Your task to perform on an android device: Do I have any events tomorrow? Image 0: 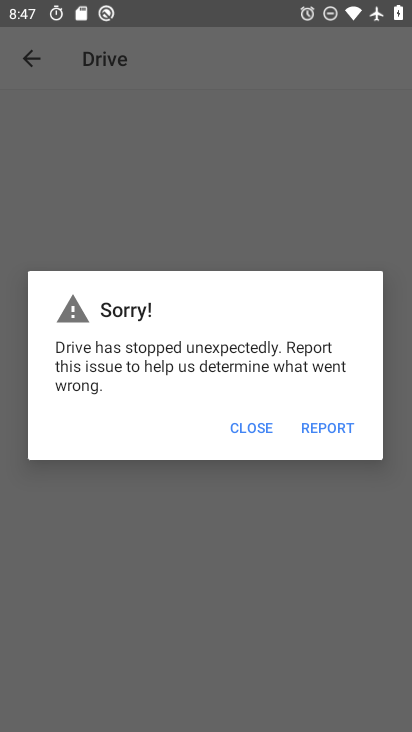
Step 0: press home button
Your task to perform on an android device: Do I have any events tomorrow? Image 1: 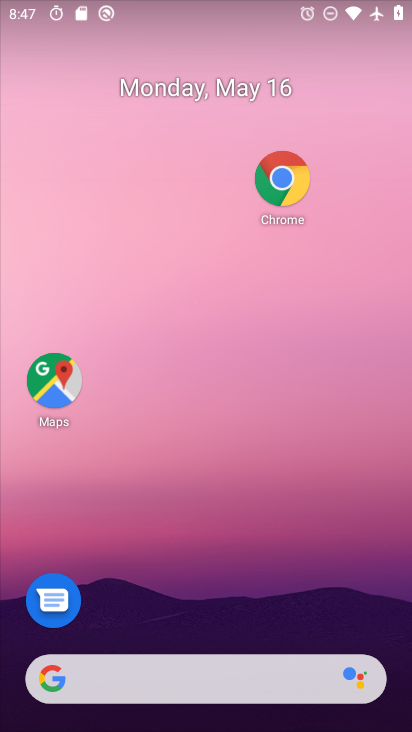
Step 1: drag from (189, 648) to (274, 122)
Your task to perform on an android device: Do I have any events tomorrow? Image 2: 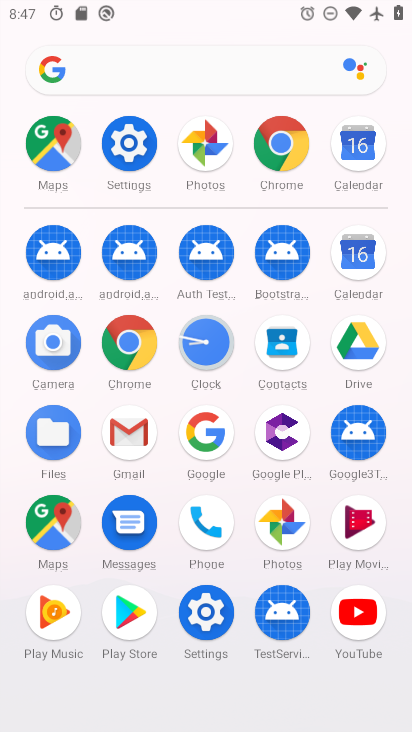
Step 2: click (362, 264)
Your task to perform on an android device: Do I have any events tomorrow? Image 3: 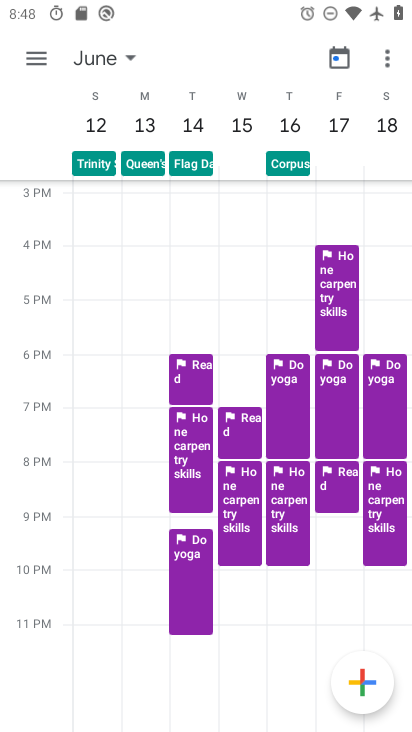
Step 3: click (117, 56)
Your task to perform on an android device: Do I have any events tomorrow? Image 4: 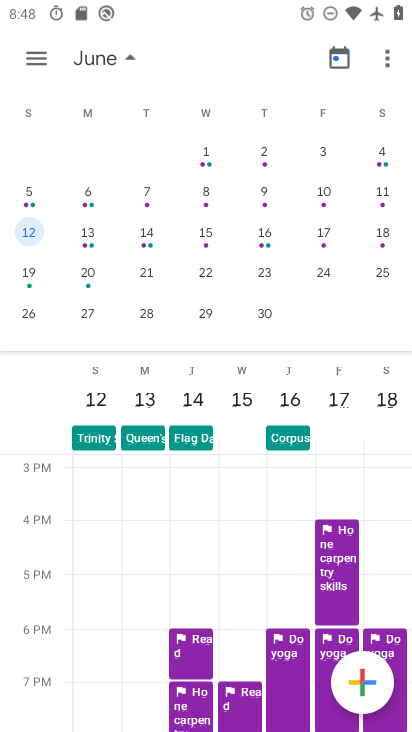
Step 4: click (336, 56)
Your task to perform on an android device: Do I have any events tomorrow? Image 5: 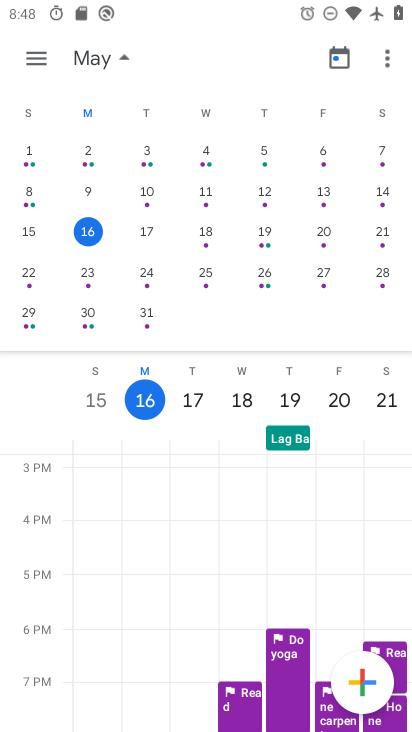
Step 5: click (147, 235)
Your task to perform on an android device: Do I have any events tomorrow? Image 6: 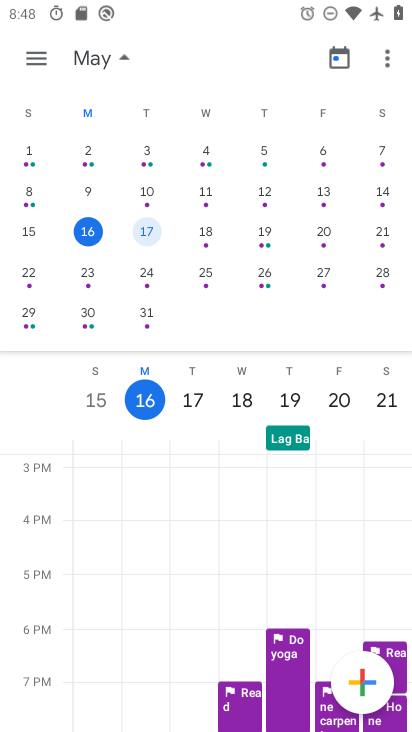
Step 6: click (37, 56)
Your task to perform on an android device: Do I have any events tomorrow? Image 7: 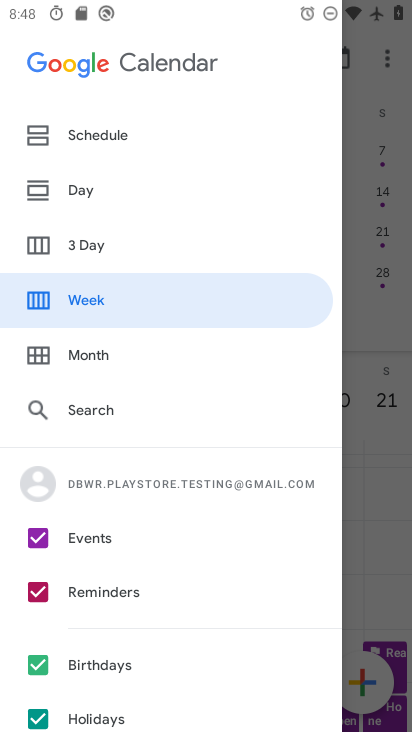
Step 7: click (84, 192)
Your task to perform on an android device: Do I have any events tomorrow? Image 8: 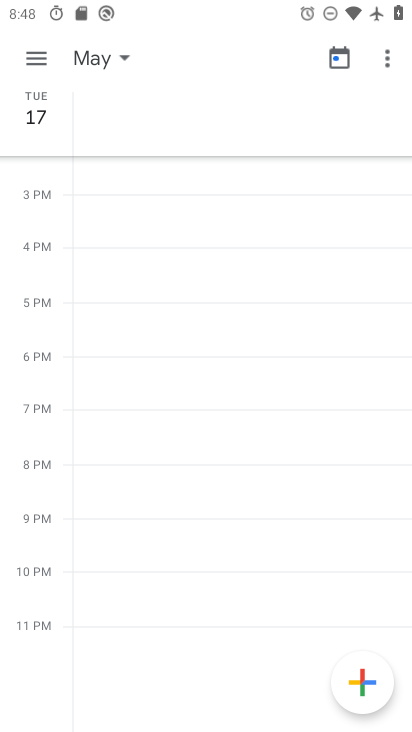
Step 8: click (36, 55)
Your task to perform on an android device: Do I have any events tomorrow? Image 9: 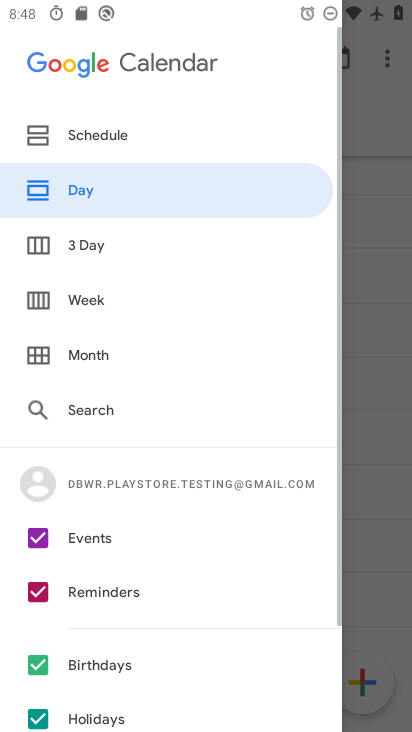
Step 9: click (106, 127)
Your task to perform on an android device: Do I have any events tomorrow? Image 10: 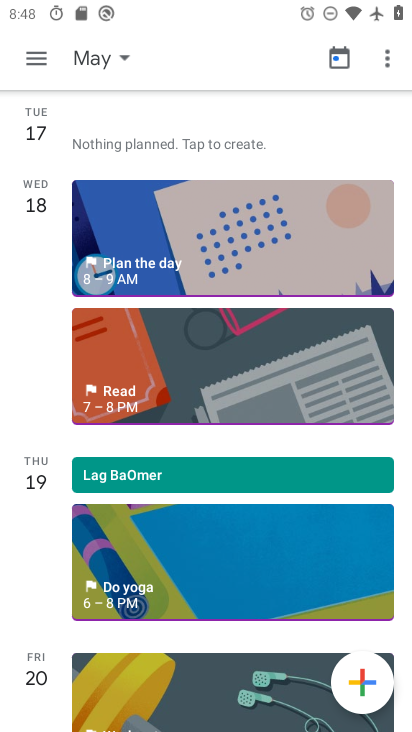
Step 10: task complete